Your task to perform on an android device: Go to eBay Image 0: 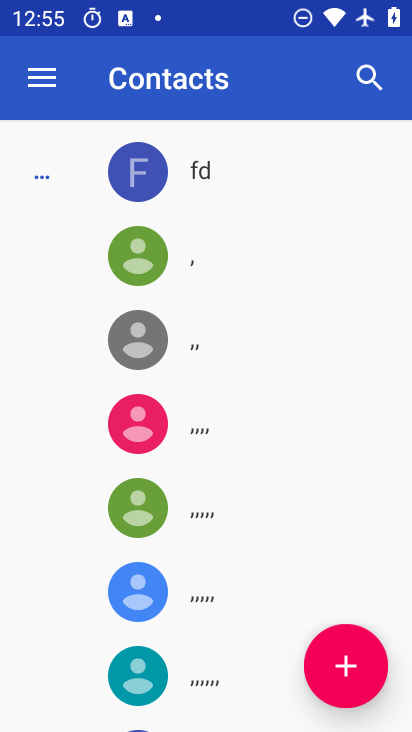
Step 0: press home button
Your task to perform on an android device: Go to eBay Image 1: 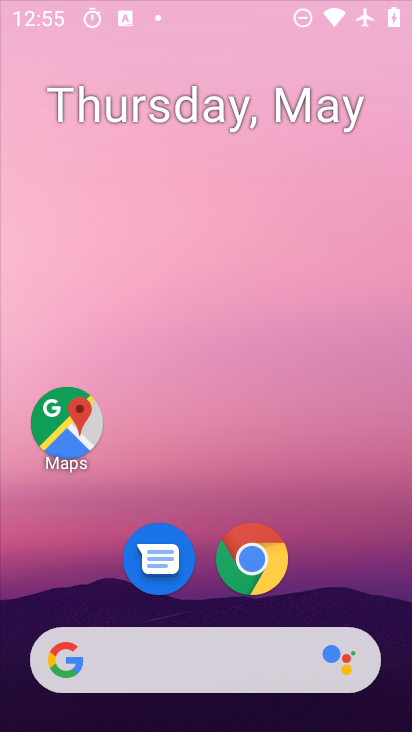
Step 1: drag from (221, 620) to (223, 204)
Your task to perform on an android device: Go to eBay Image 2: 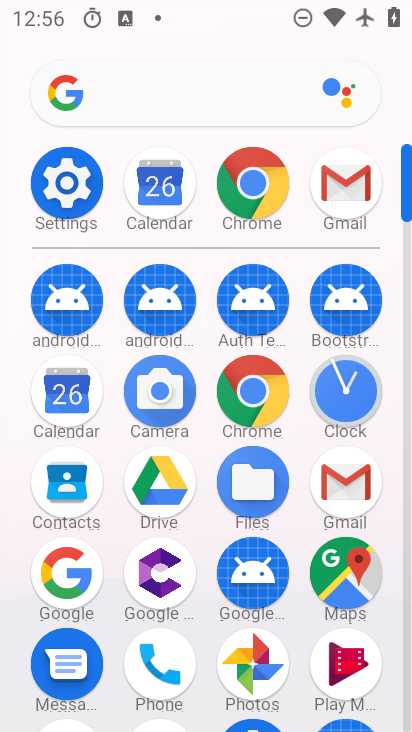
Step 2: click (248, 205)
Your task to perform on an android device: Go to eBay Image 3: 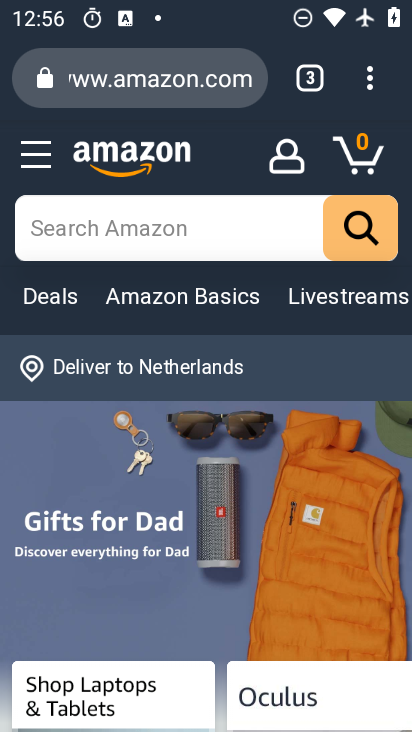
Step 3: click (217, 95)
Your task to perform on an android device: Go to eBay Image 4: 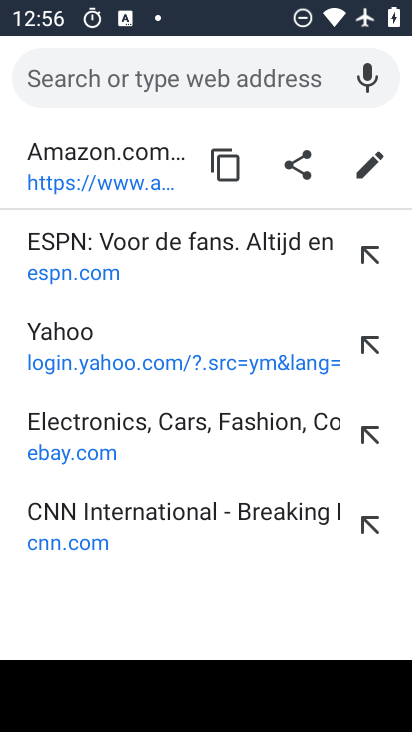
Step 4: click (151, 432)
Your task to perform on an android device: Go to eBay Image 5: 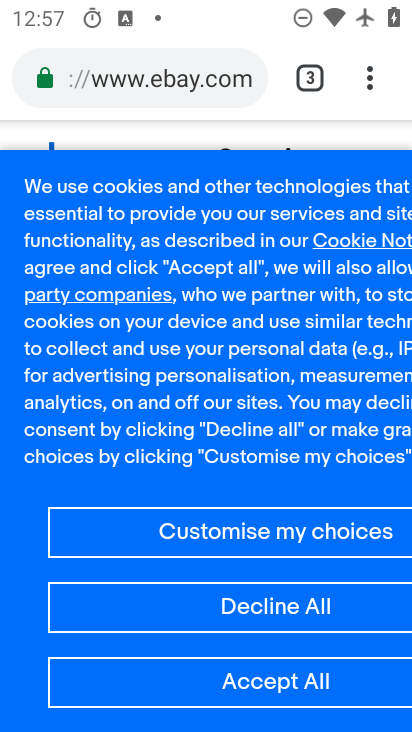
Step 5: task complete